Your task to perform on an android device: Show me productivity apps on the Play Store Image 0: 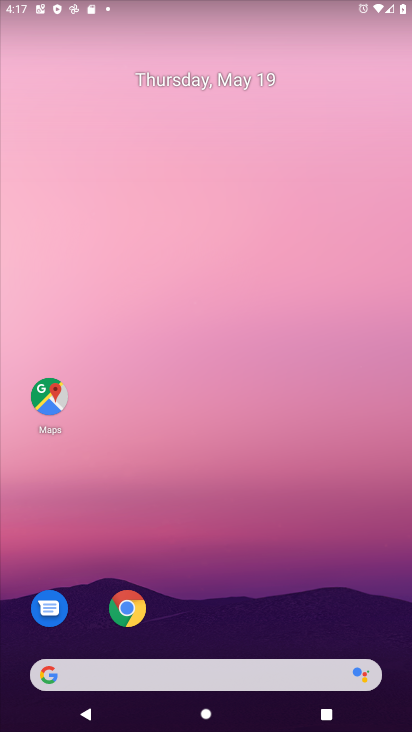
Step 0: drag from (257, 623) to (240, 449)
Your task to perform on an android device: Show me productivity apps on the Play Store Image 1: 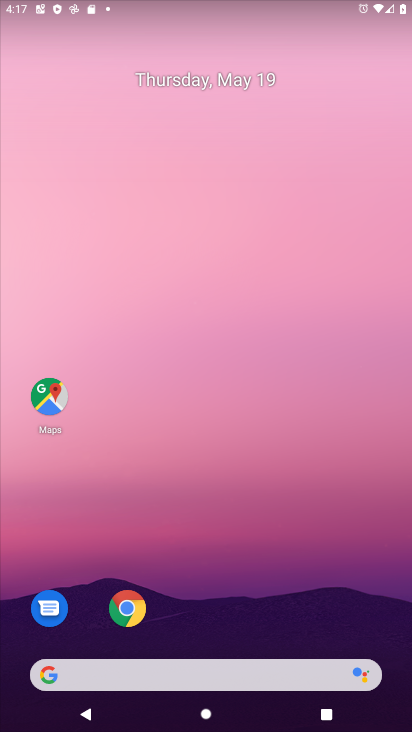
Step 1: drag from (246, 585) to (266, 110)
Your task to perform on an android device: Show me productivity apps on the Play Store Image 2: 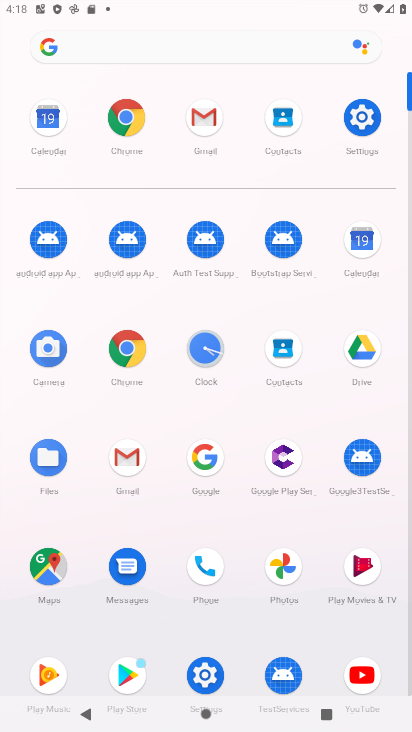
Step 2: click (111, 674)
Your task to perform on an android device: Show me productivity apps on the Play Store Image 3: 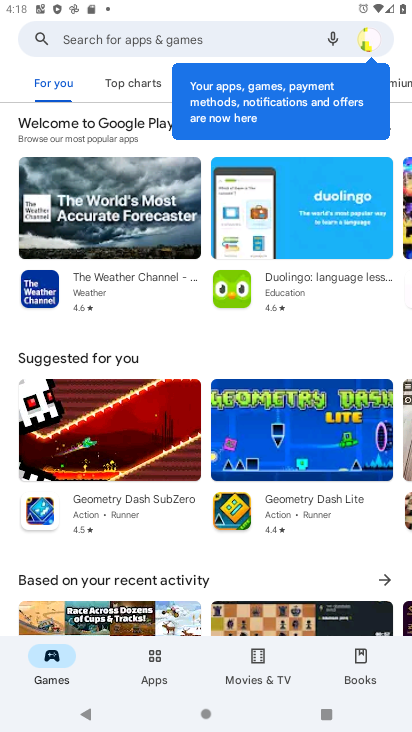
Step 3: click (154, 656)
Your task to perform on an android device: Show me productivity apps on the Play Store Image 4: 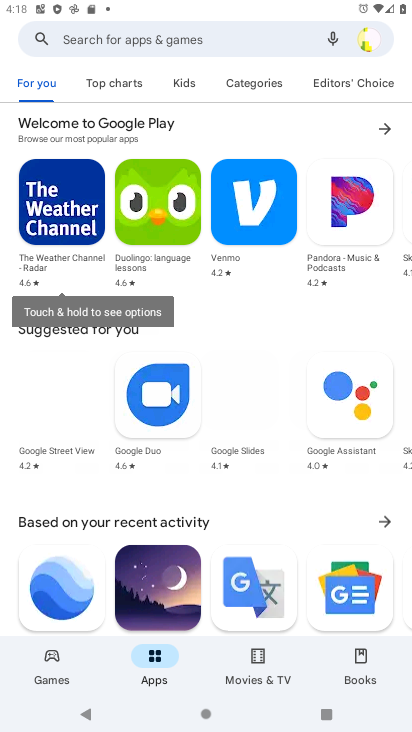
Step 4: click (126, 89)
Your task to perform on an android device: Show me productivity apps on the Play Store Image 5: 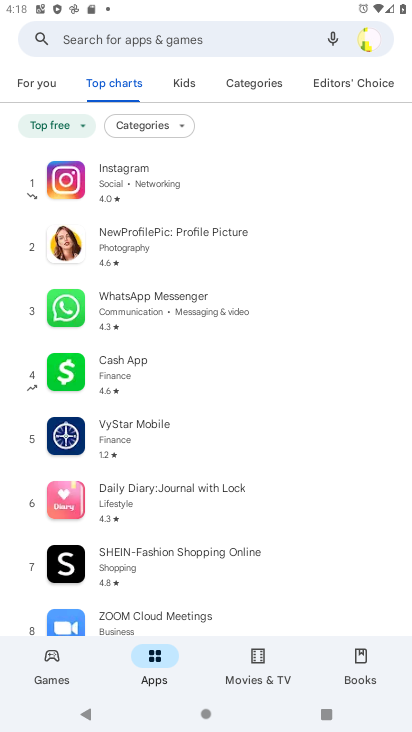
Step 5: click (176, 129)
Your task to perform on an android device: Show me productivity apps on the Play Store Image 6: 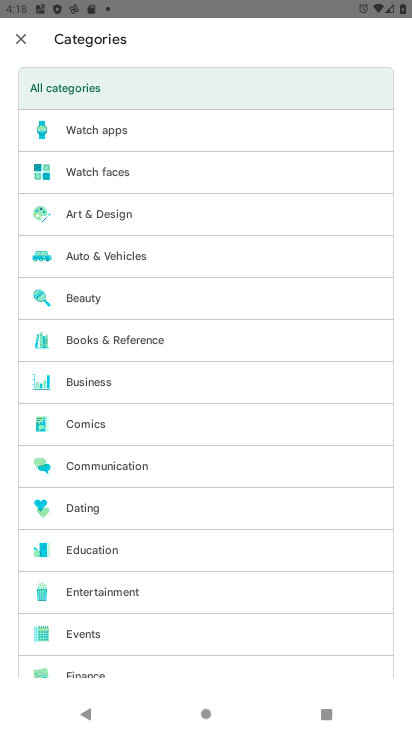
Step 6: drag from (113, 633) to (178, 288)
Your task to perform on an android device: Show me productivity apps on the Play Store Image 7: 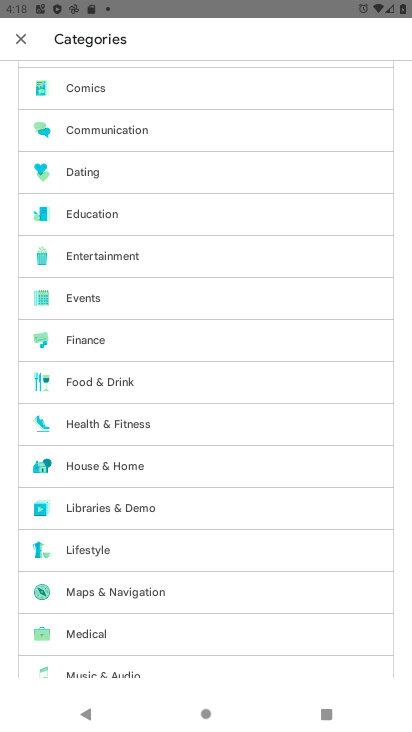
Step 7: drag from (142, 609) to (237, 255)
Your task to perform on an android device: Show me productivity apps on the Play Store Image 8: 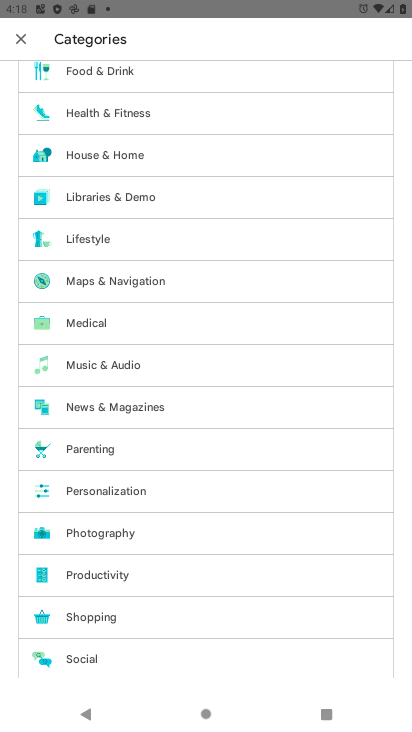
Step 8: click (144, 565)
Your task to perform on an android device: Show me productivity apps on the Play Store Image 9: 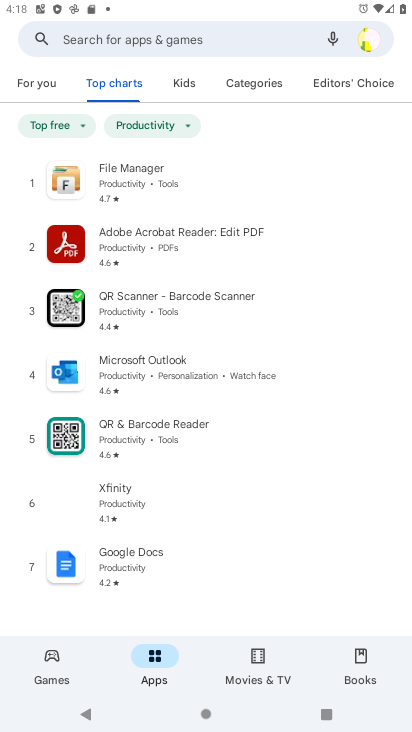
Step 9: task complete